Your task to perform on an android device: choose inbox layout in the gmail app Image 0: 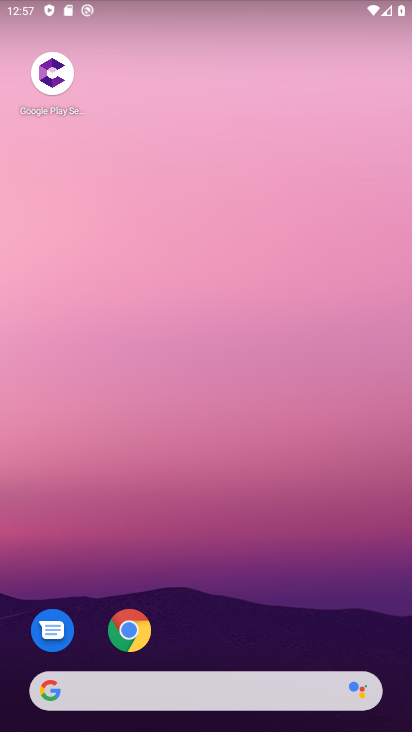
Step 0: drag from (259, 496) to (328, 114)
Your task to perform on an android device: choose inbox layout in the gmail app Image 1: 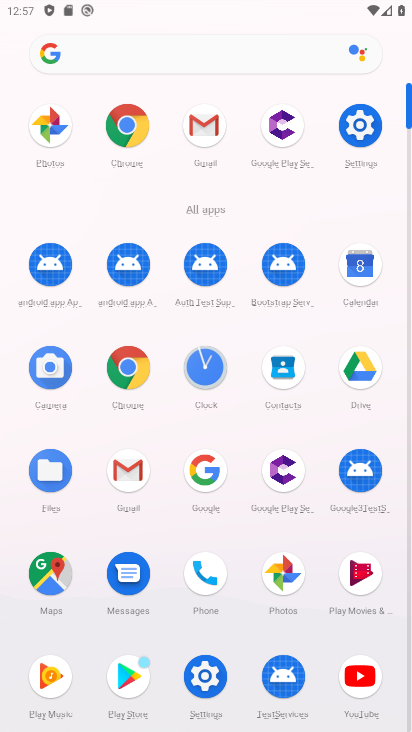
Step 1: click (127, 474)
Your task to perform on an android device: choose inbox layout in the gmail app Image 2: 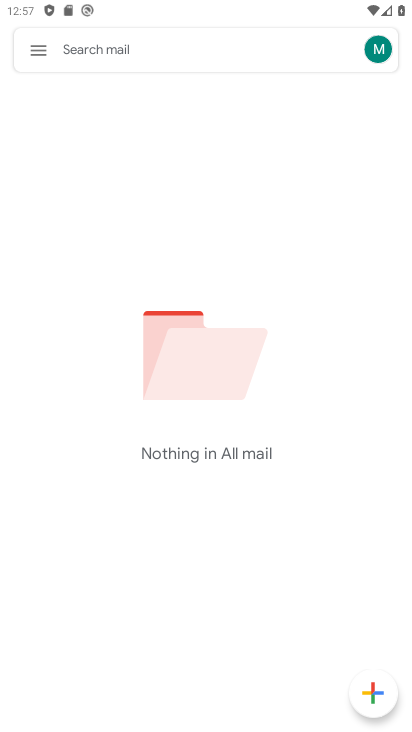
Step 2: click (34, 45)
Your task to perform on an android device: choose inbox layout in the gmail app Image 3: 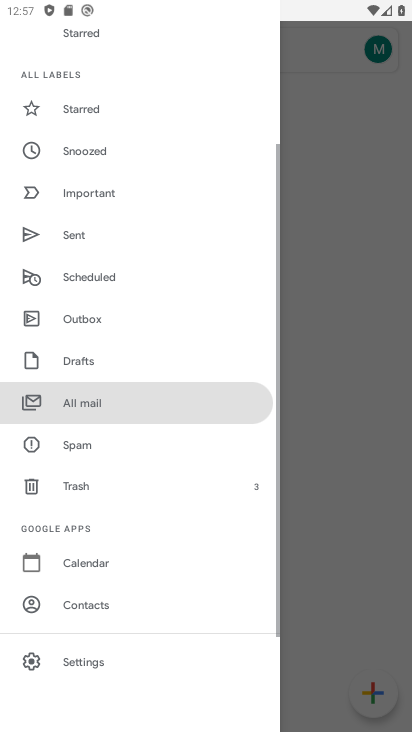
Step 3: drag from (78, 573) to (194, 200)
Your task to perform on an android device: choose inbox layout in the gmail app Image 4: 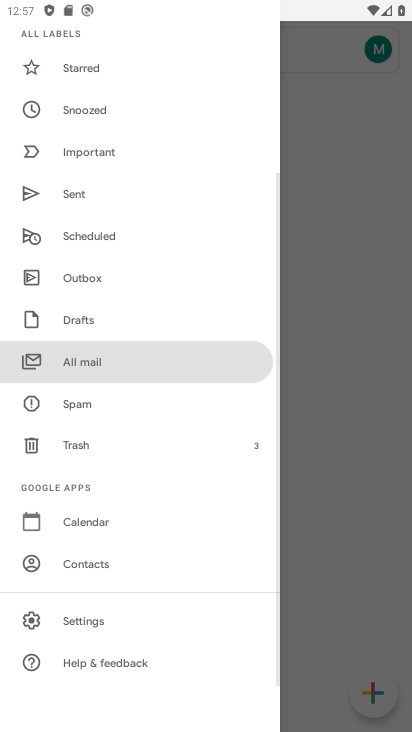
Step 4: click (103, 623)
Your task to perform on an android device: choose inbox layout in the gmail app Image 5: 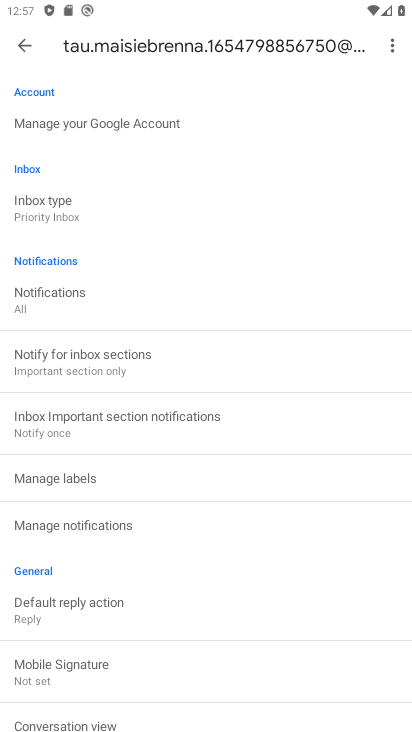
Step 5: click (114, 207)
Your task to perform on an android device: choose inbox layout in the gmail app Image 6: 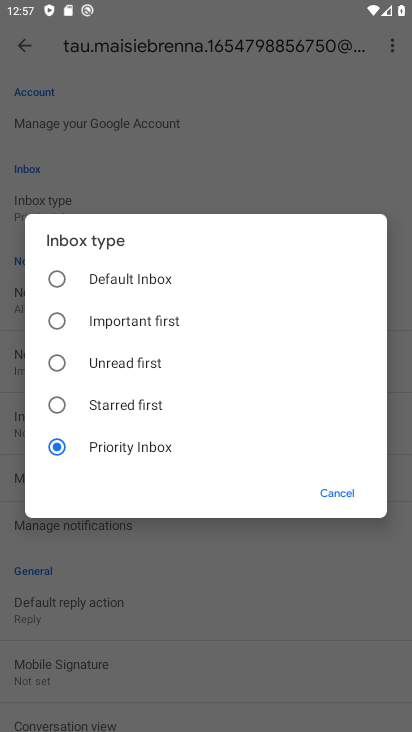
Step 6: click (143, 274)
Your task to perform on an android device: choose inbox layout in the gmail app Image 7: 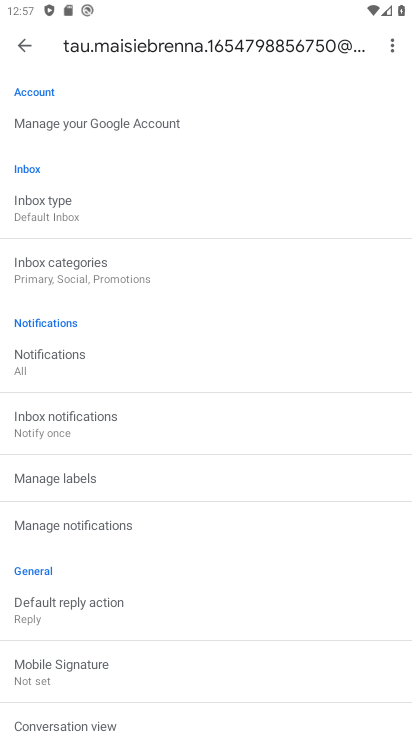
Step 7: click (98, 219)
Your task to perform on an android device: choose inbox layout in the gmail app Image 8: 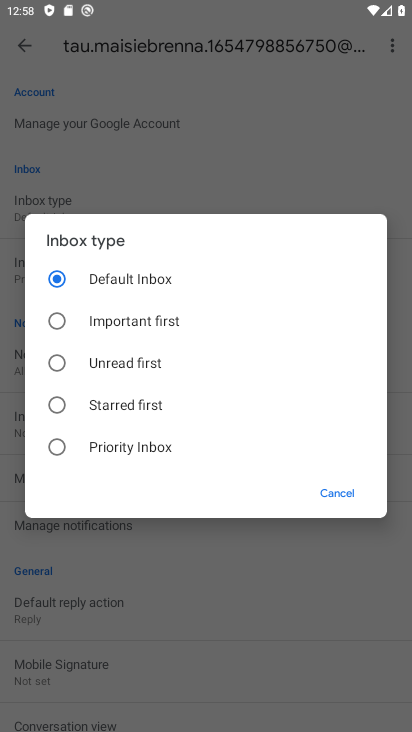
Step 8: click (160, 443)
Your task to perform on an android device: choose inbox layout in the gmail app Image 9: 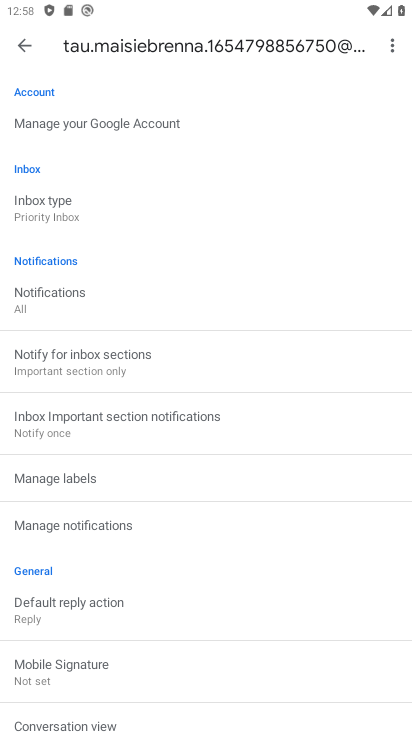
Step 9: task complete